Your task to perform on an android device: Open the map Image 0: 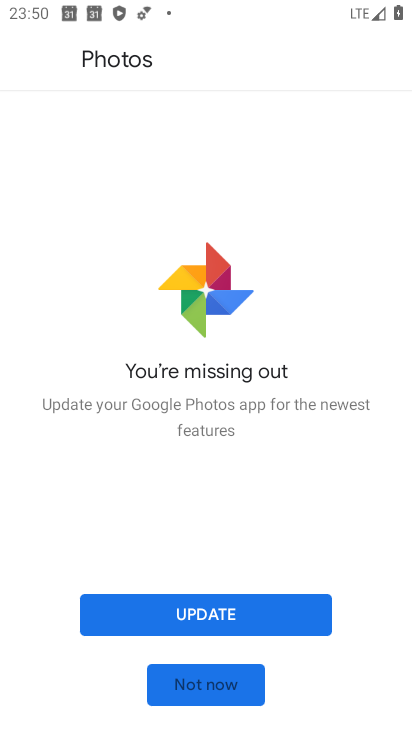
Step 0: press home button
Your task to perform on an android device: Open the map Image 1: 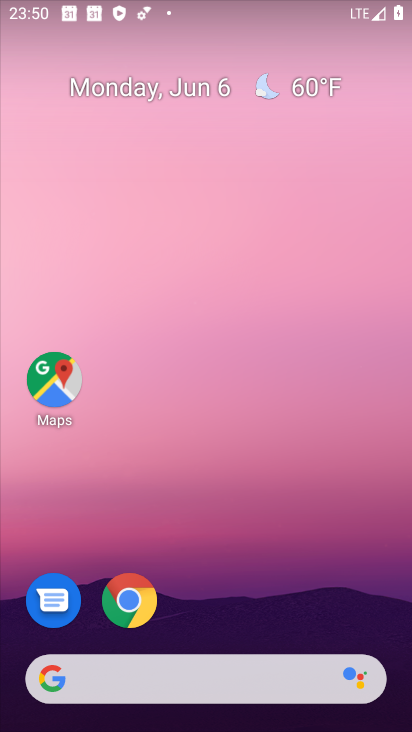
Step 1: drag from (255, 726) to (258, 15)
Your task to perform on an android device: Open the map Image 2: 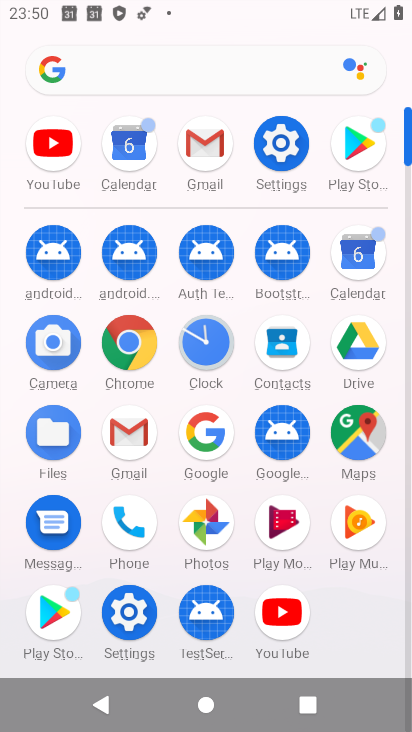
Step 2: click (361, 450)
Your task to perform on an android device: Open the map Image 3: 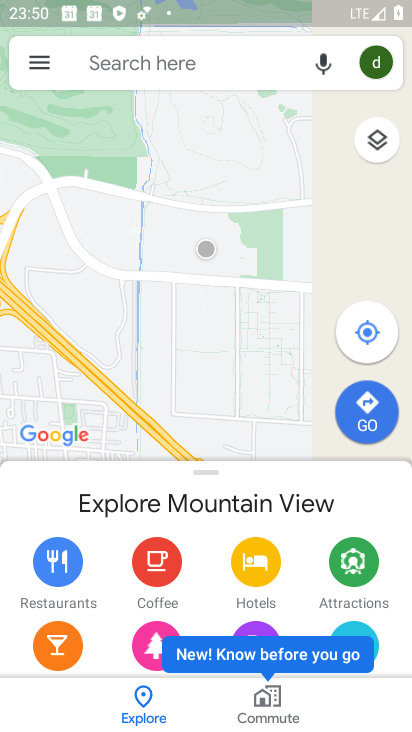
Step 3: task complete